Your task to perform on an android device: check google app version Image 0: 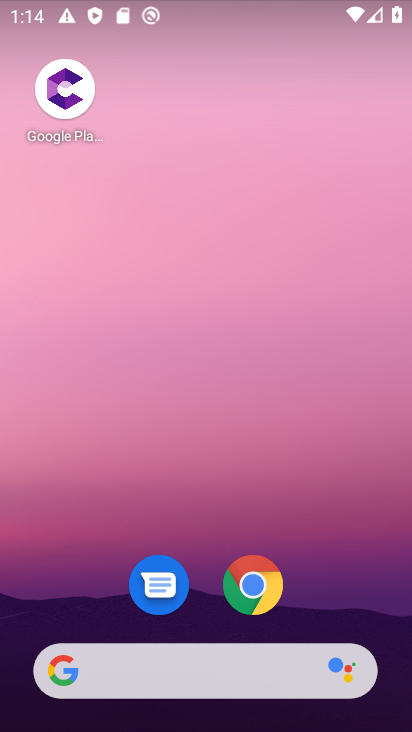
Step 0: click (191, 682)
Your task to perform on an android device: check google app version Image 1: 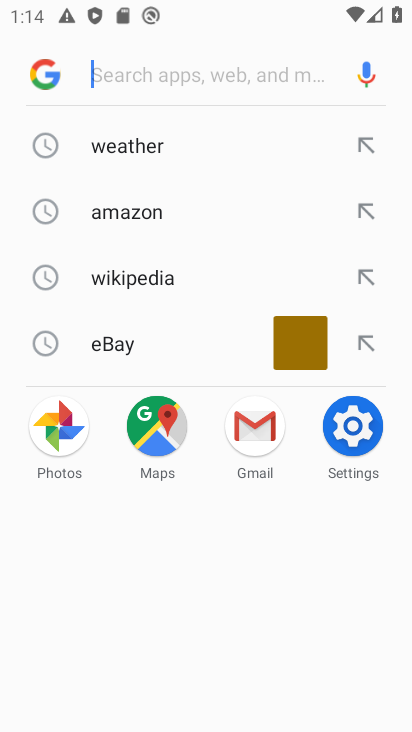
Step 1: click (33, 71)
Your task to perform on an android device: check google app version Image 2: 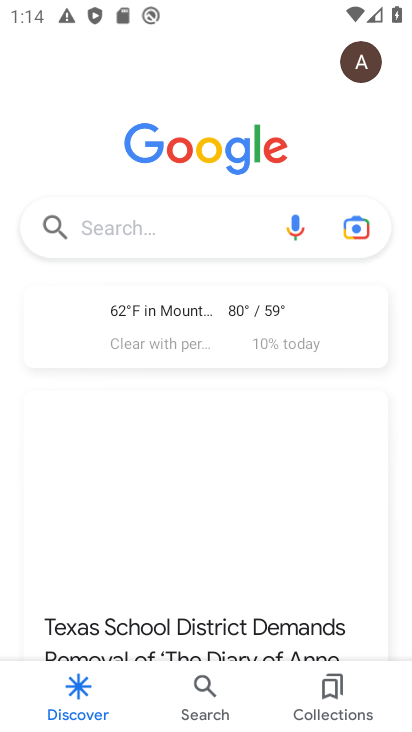
Step 2: click (362, 63)
Your task to perform on an android device: check google app version Image 3: 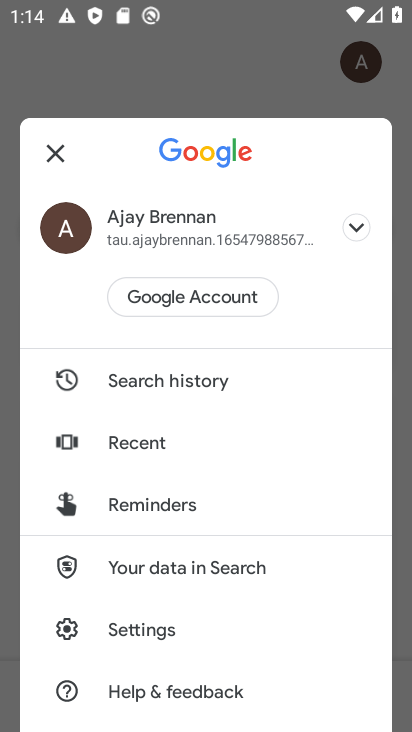
Step 3: click (161, 620)
Your task to perform on an android device: check google app version Image 4: 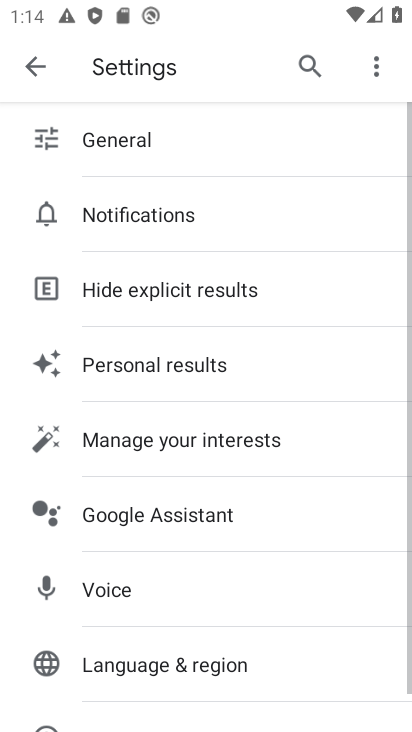
Step 4: drag from (161, 531) to (117, 62)
Your task to perform on an android device: check google app version Image 5: 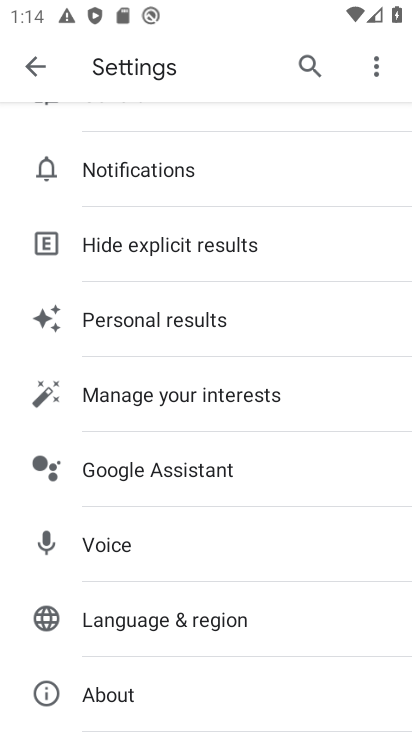
Step 5: drag from (263, 567) to (262, 166)
Your task to perform on an android device: check google app version Image 6: 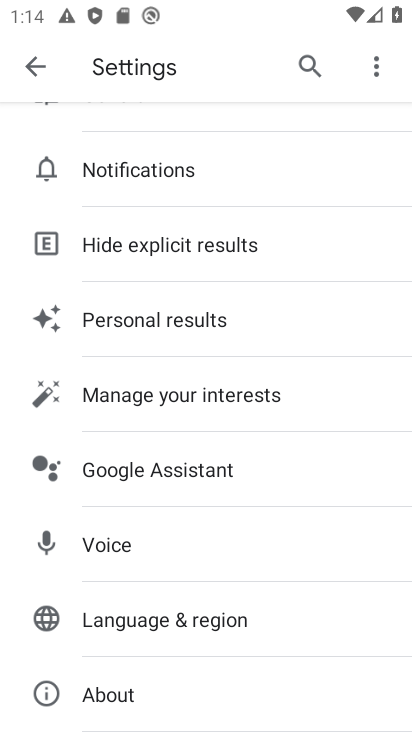
Step 6: drag from (222, 418) to (195, 179)
Your task to perform on an android device: check google app version Image 7: 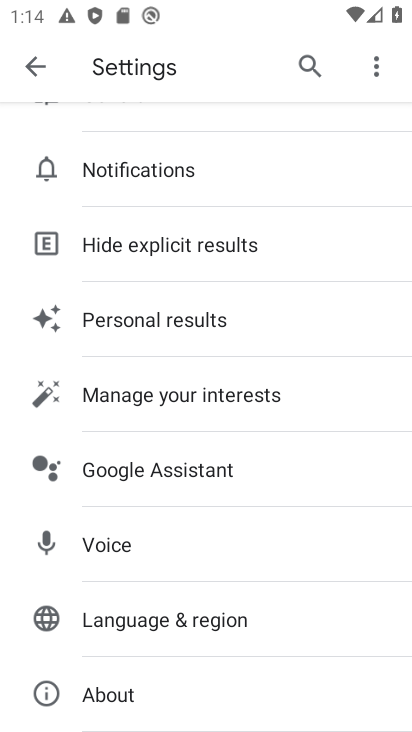
Step 7: click (118, 690)
Your task to perform on an android device: check google app version Image 8: 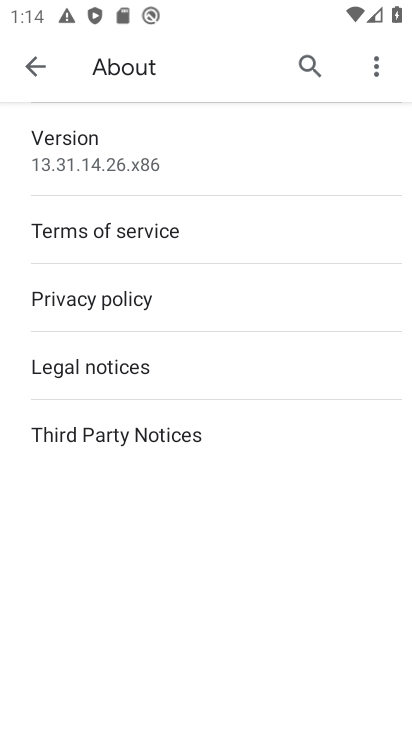
Step 8: task complete